Your task to perform on an android device: Open Yahoo.com Image 0: 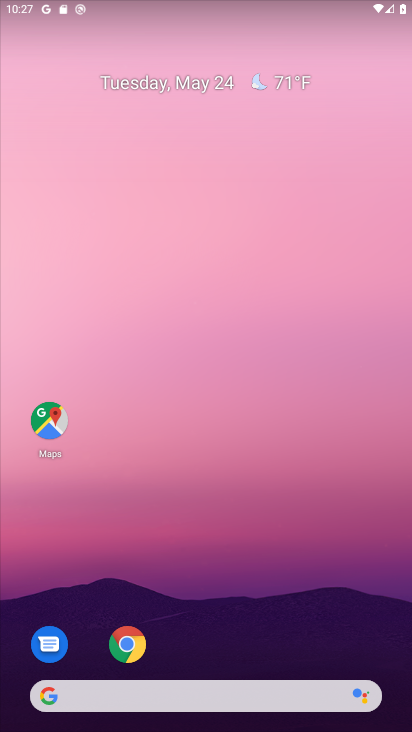
Step 0: click (128, 653)
Your task to perform on an android device: Open Yahoo.com Image 1: 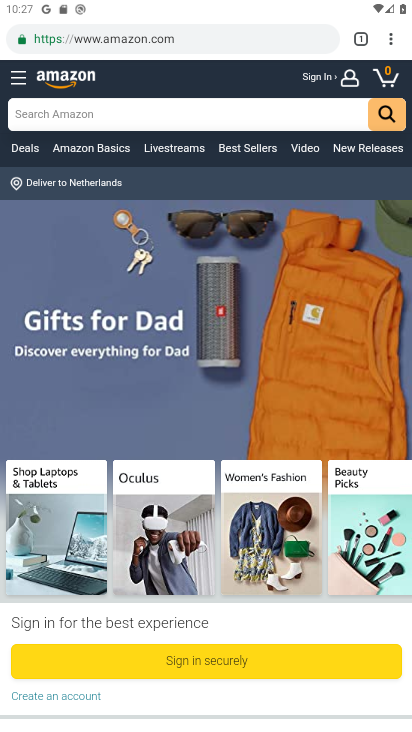
Step 1: click (390, 33)
Your task to perform on an android device: Open Yahoo.com Image 2: 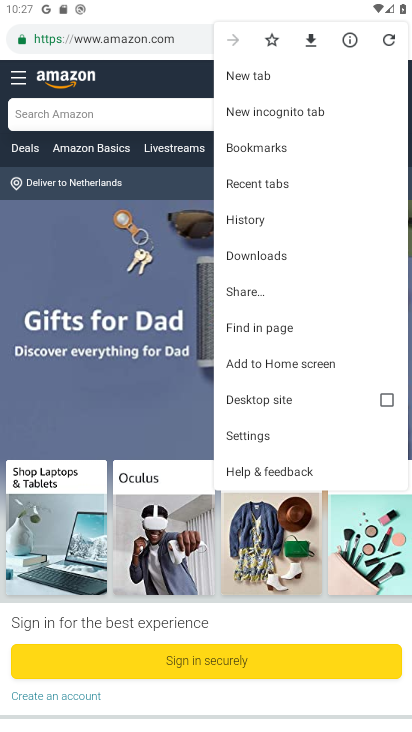
Step 2: click (264, 74)
Your task to perform on an android device: Open Yahoo.com Image 3: 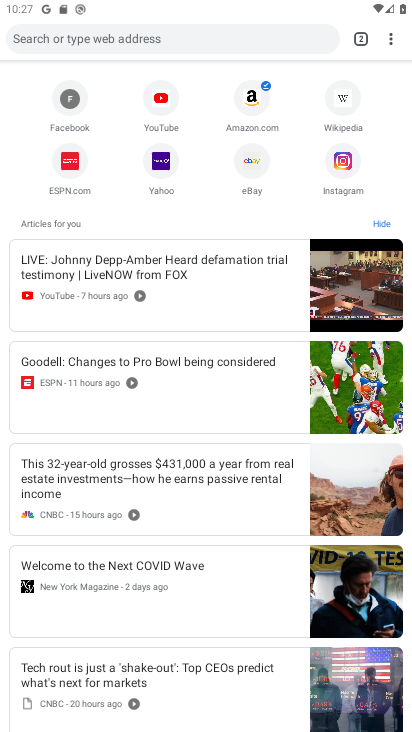
Step 3: click (164, 160)
Your task to perform on an android device: Open Yahoo.com Image 4: 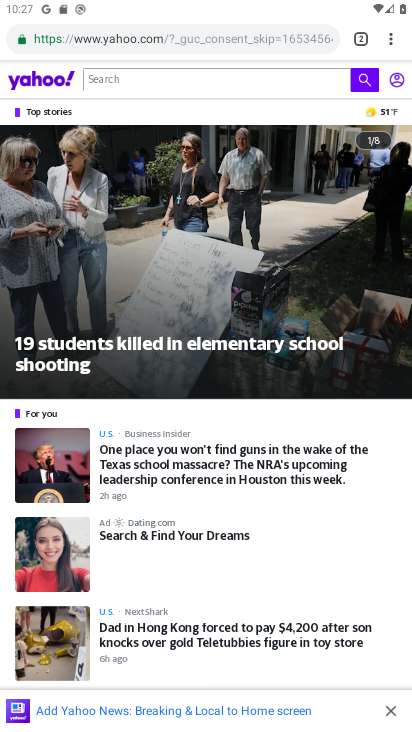
Step 4: task complete